Your task to perform on an android device: Go to CNN.com Image 0: 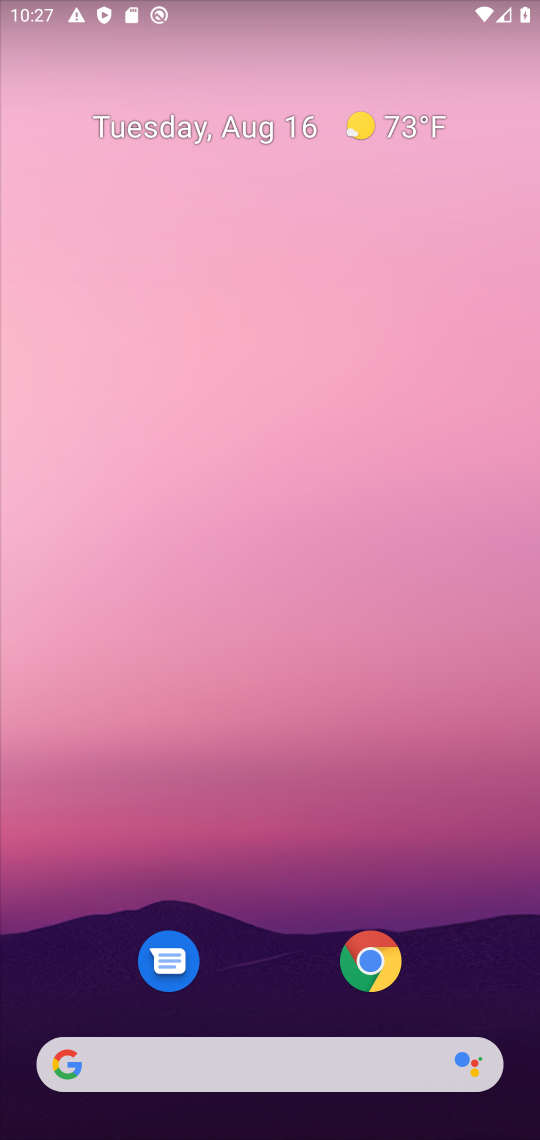
Step 0: click (266, 1074)
Your task to perform on an android device: Go to CNN.com Image 1: 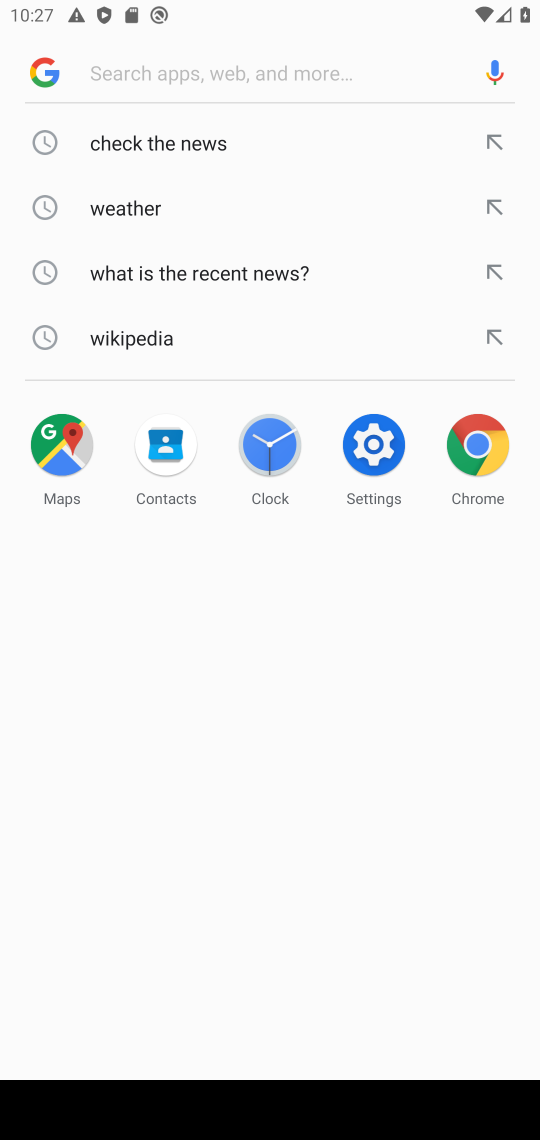
Step 1: type "CNN.com"
Your task to perform on an android device: Go to CNN.com Image 2: 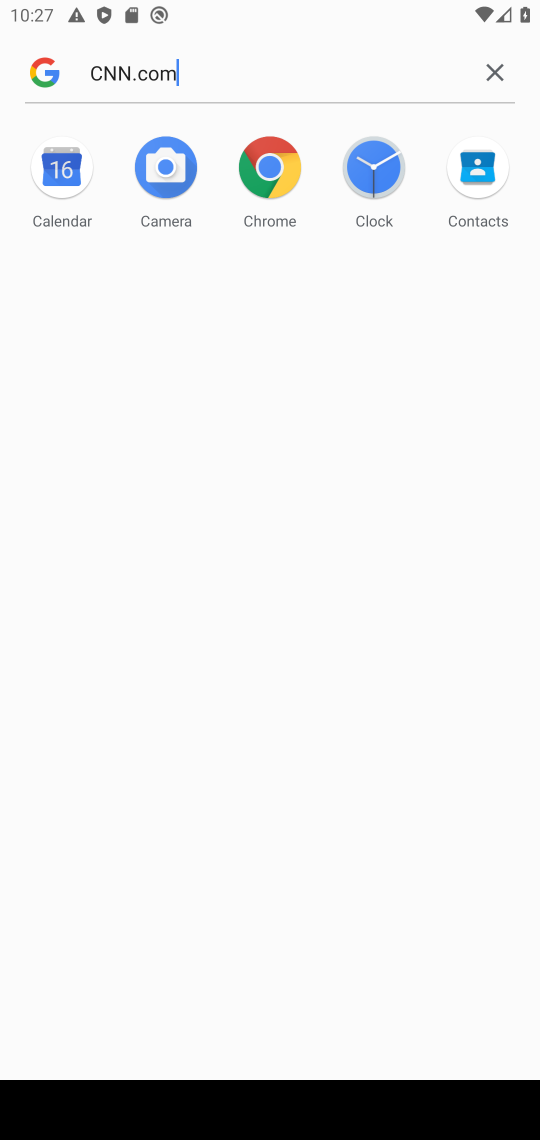
Step 2: press enter
Your task to perform on an android device: Go to CNN.com Image 3: 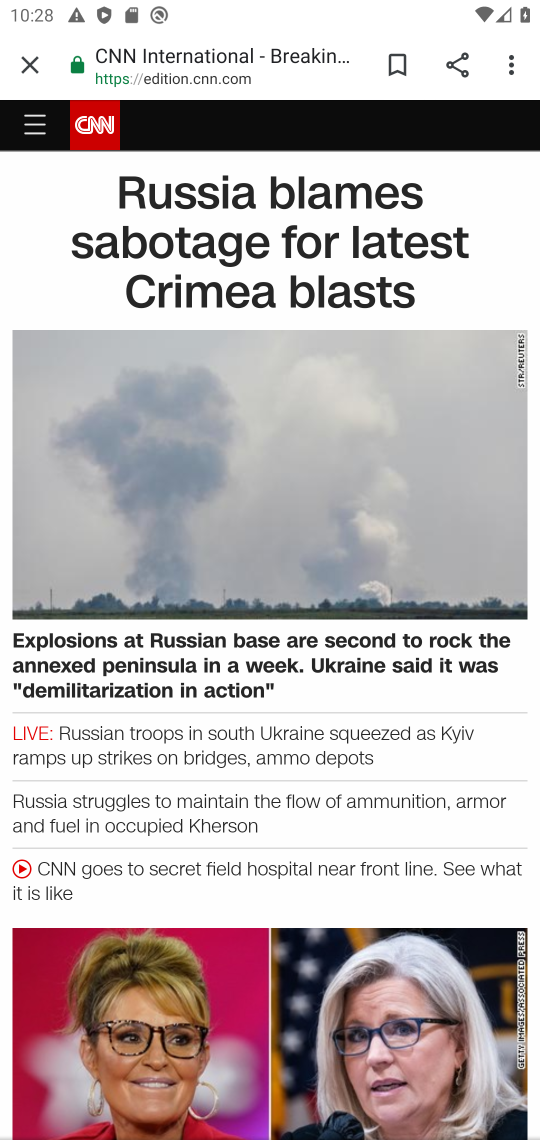
Step 3: task complete